Your task to perform on an android device: Open network settings Image 0: 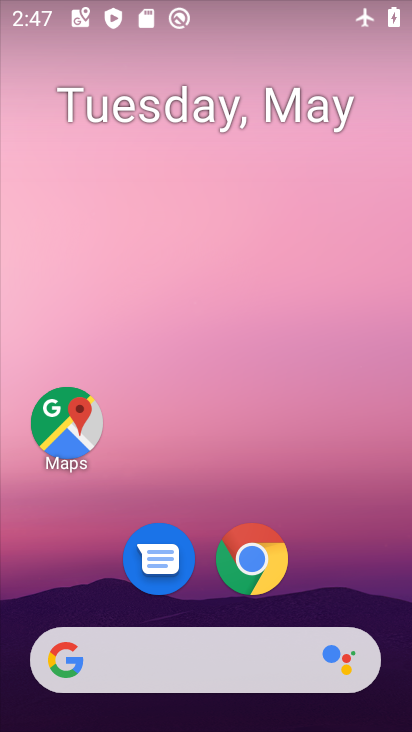
Step 0: press home button
Your task to perform on an android device: Open network settings Image 1: 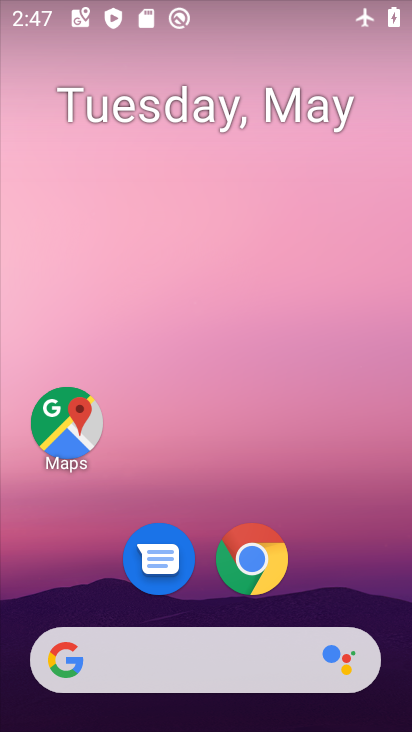
Step 1: drag from (161, 658) to (233, 82)
Your task to perform on an android device: Open network settings Image 2: 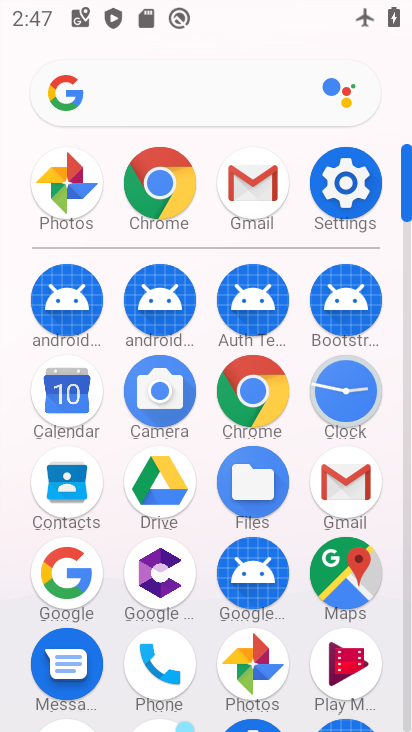
Step 2: click (335, 193)
Your task to perform on an android device: Open network settings Image 3: 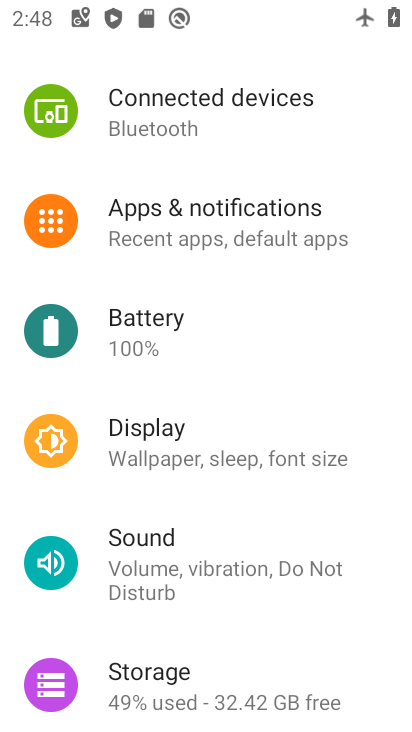
Step 3: drag from (359, 130) to (231, 576)
Your task to perform on an android device: Open network settings Image 4: 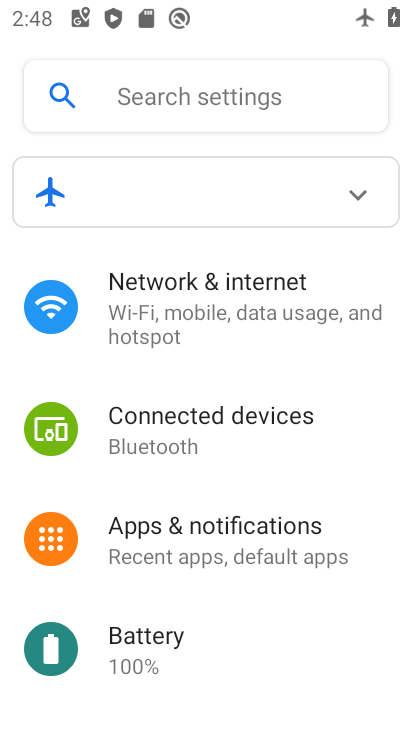
Step 4: click (203, 285)
Your task to perform on an android device: Open network settings Image 5: 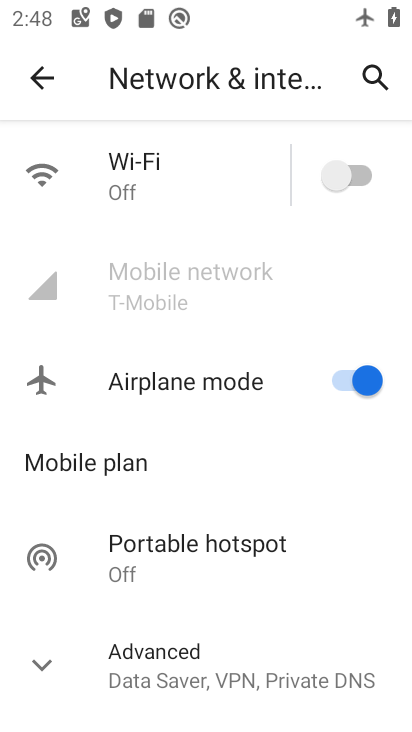
Step 5: task complete